Your task to perform on an android device: turn off picture-in-picture Image 0: 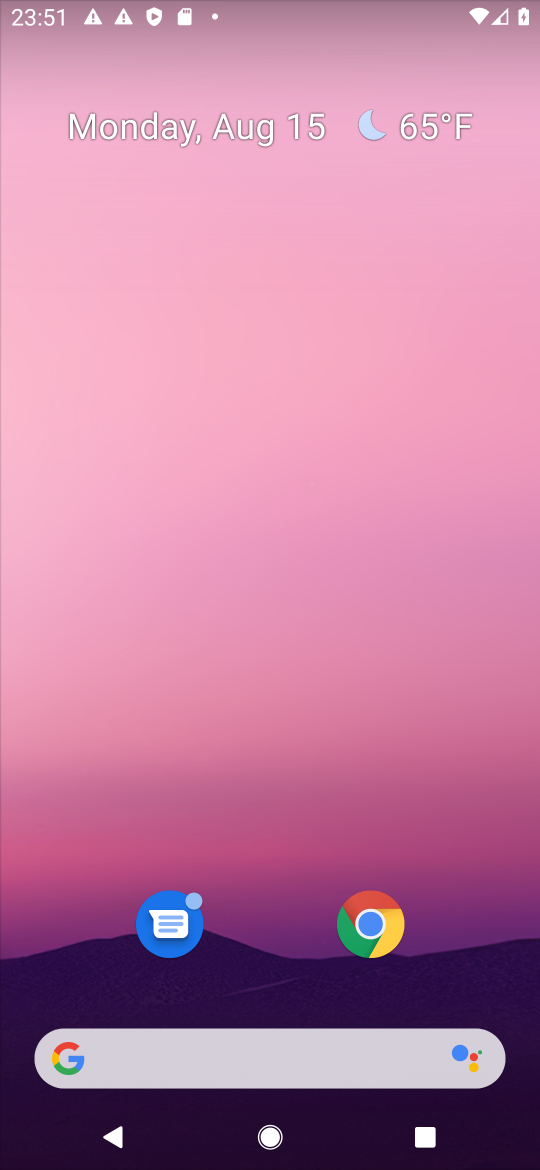
Step 0: click (376, 913)
Your task to perform on an android device: turn off picture-in-picture Image 1: 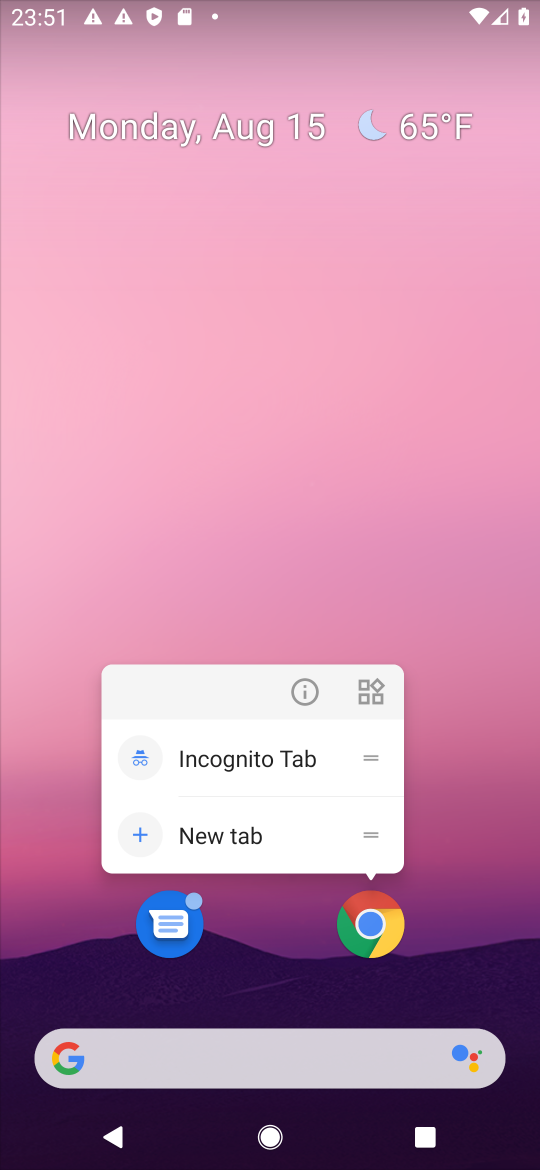
Step 1: click (299, 696)
Your task to perform on an android device: turn off picture-in-picture Image 2: 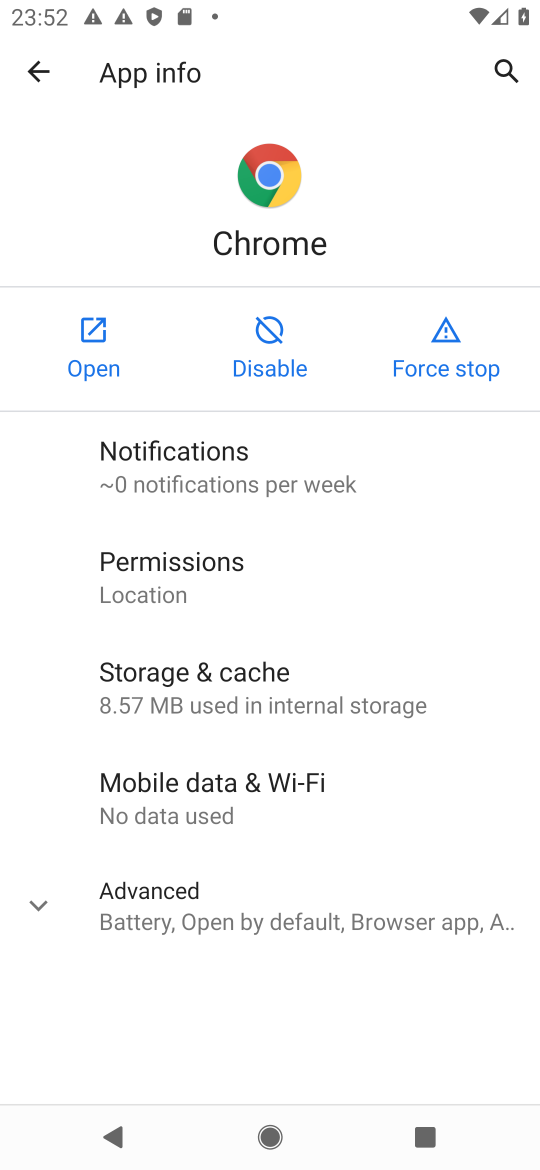
Step 2: click (287, 910)
Your task to perform on an android device: turn off picture-in-picture Image 3: 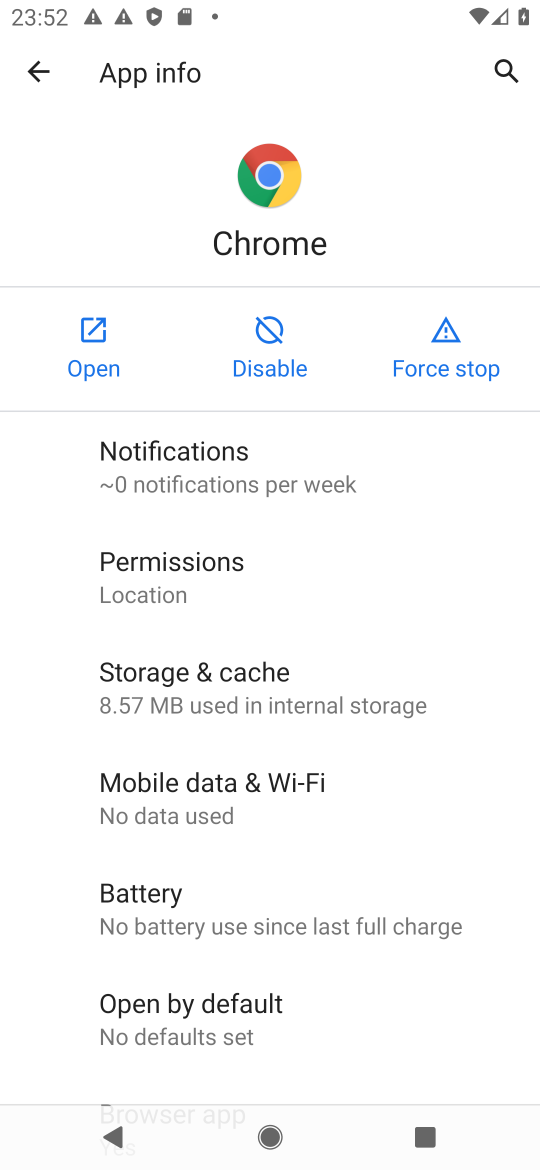
Step 3: drag from (340, 1049) to (257, 468)
Your task to perform on an android device: turn off picture-in-picture Image 4: 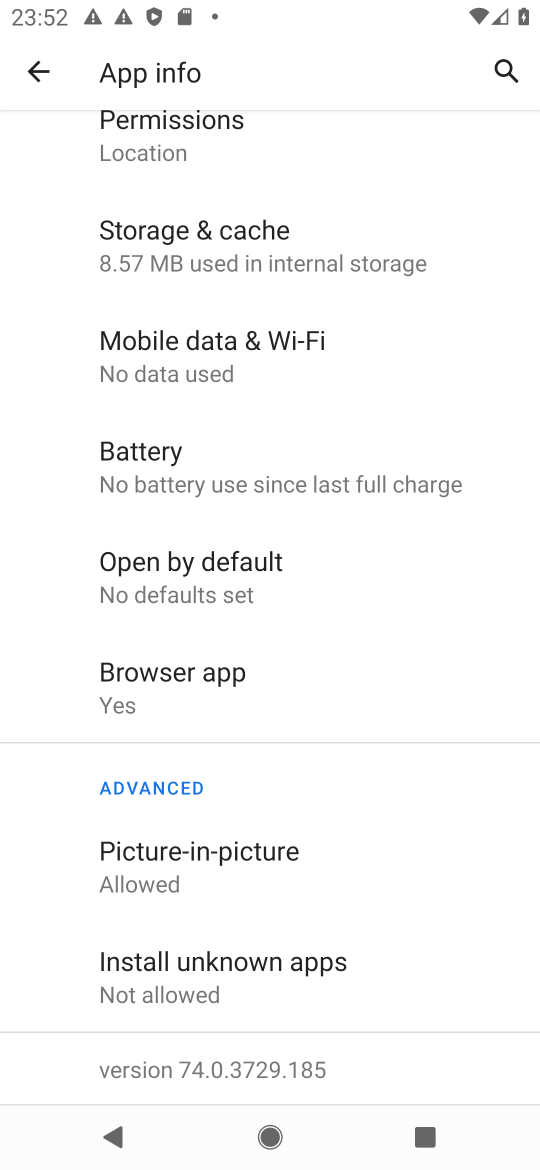
Step 4: click (249, 849)
Your task to perform on an android device: turn off picture-in-picture Image 5: 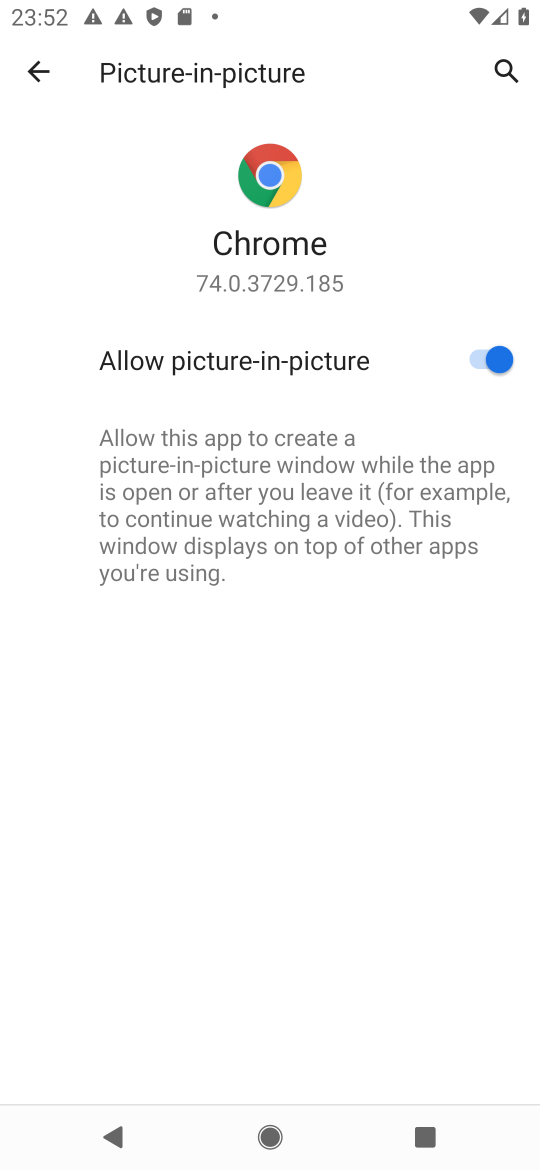
Step 5: click (487, 348)
Your task to perform on an android device: turn off picture-in-picture Image 6: 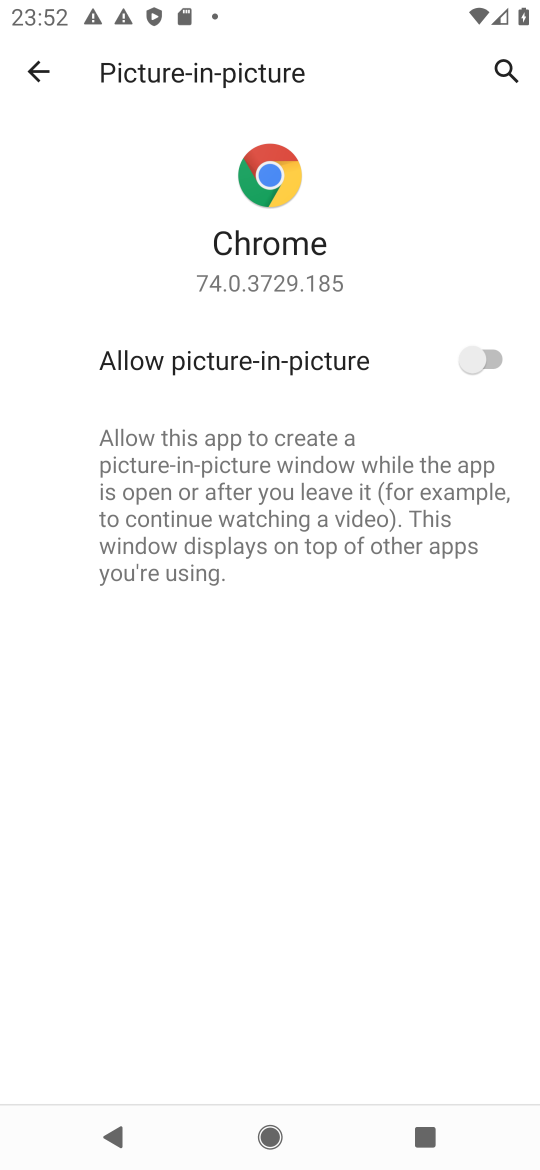
Step 6: task complete